Your task to perform on an android device: toggle translation in the chrome app Image 0: 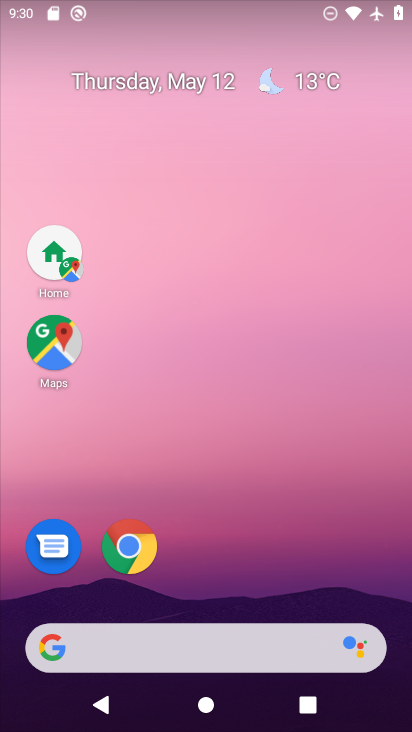
Step 0: click (131, 554)
Your task to perform on an android device: toggle translation in the chrome app Image 1: 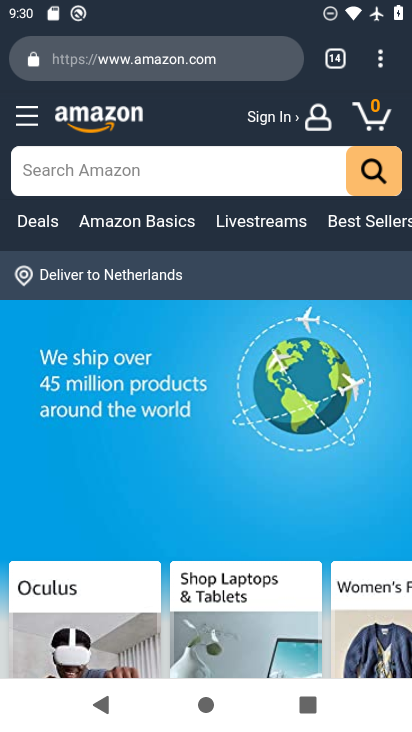
Step 1: drag from (378, 64) to (259, 566)
Your task to perform on an android device: toggle translation in the chrome app Image 2: 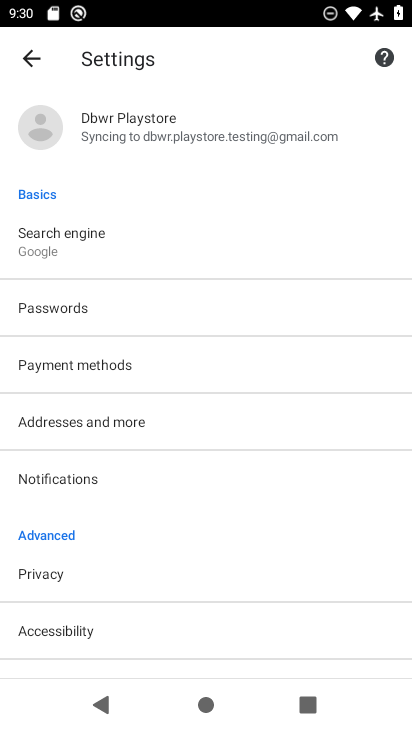
Step 2: drag from (117, 602) to (245, 219)
Your task to perform on an android device: toggle translation in the chrome app Image 3: 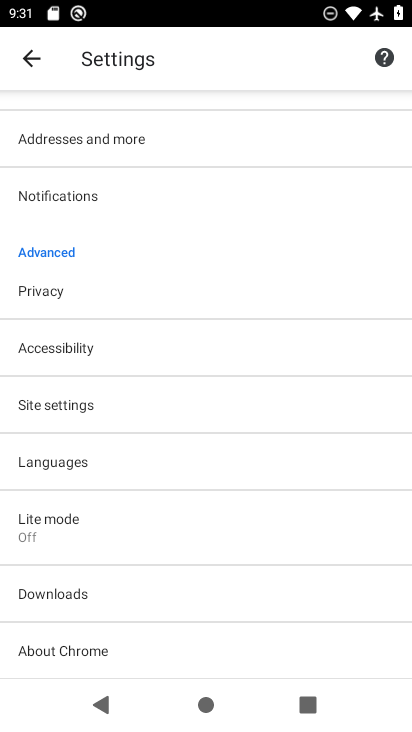
Step 3: click (90, 465)
Your task to perform on an android device: toggle translation in the chrome app Image 4: 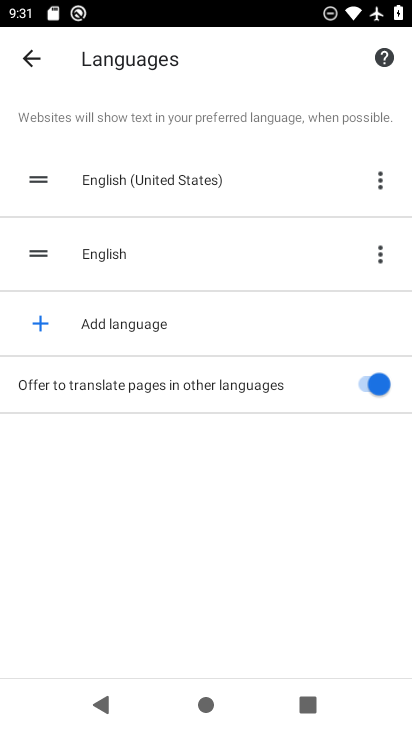
Step 4: click (373, 384)
Your task to perform on an android device: toggle translation in the chrome app Image 5: 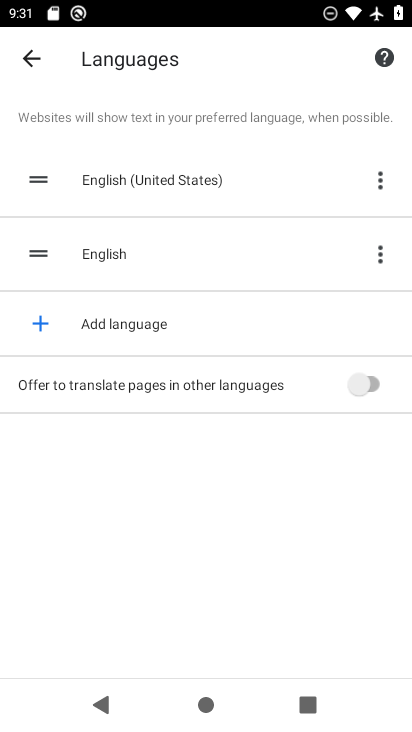
Step 5: task complete